Your task to perform on an android device: Go to ESPN.com Image 0: 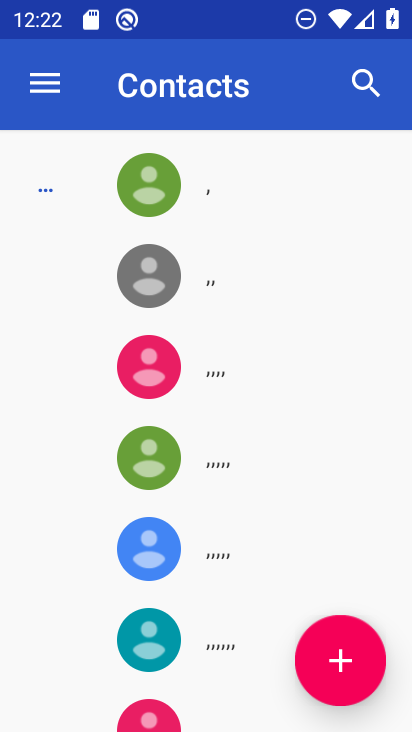
Step 0: press home button
Your task to perform on an android device: Go to ESPN.com Image 1: 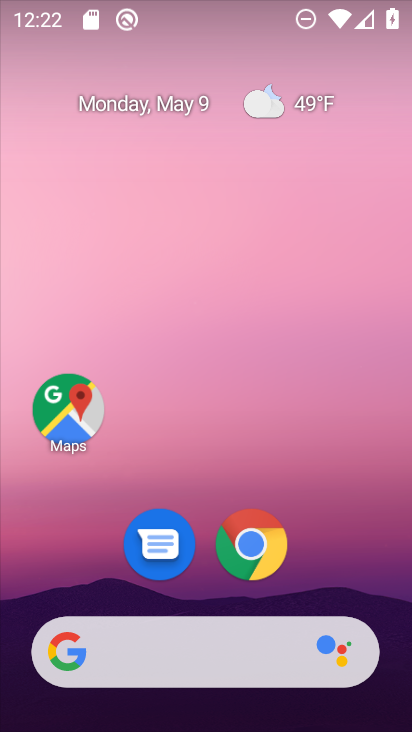
Step 1: click (234, 552)
Your task to perform on an android device: Go to ESPN.com Image 2: 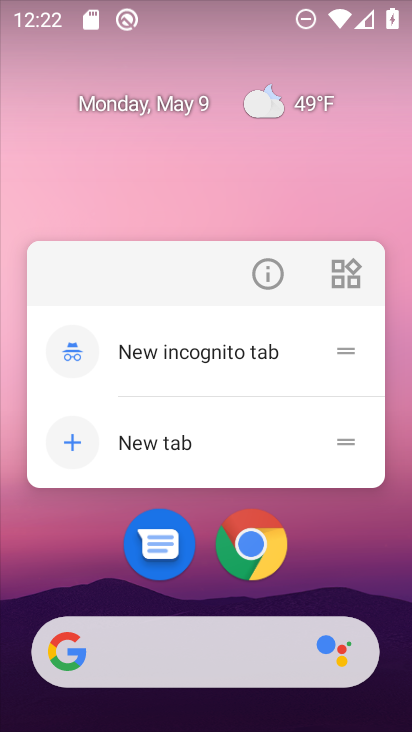
Step 2: click (234, 552)
Your task to perform on an android device: Go to ESPN.com Image 3: 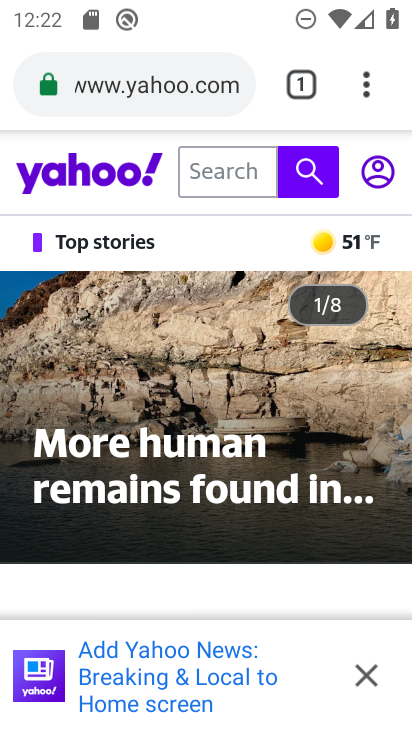
Step 3: click (210, 90)
Your task to perform on an android device: Go to ESPN.com Image 4: 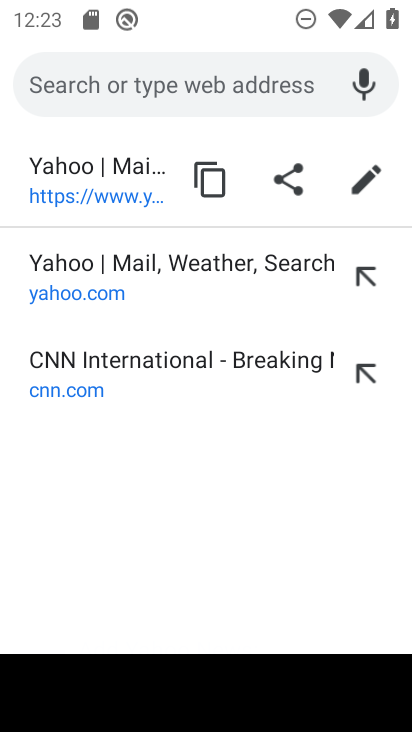
Step 4: type "espn.com"
Your task to perform on an android device: Go to ESPN.com Image 5: 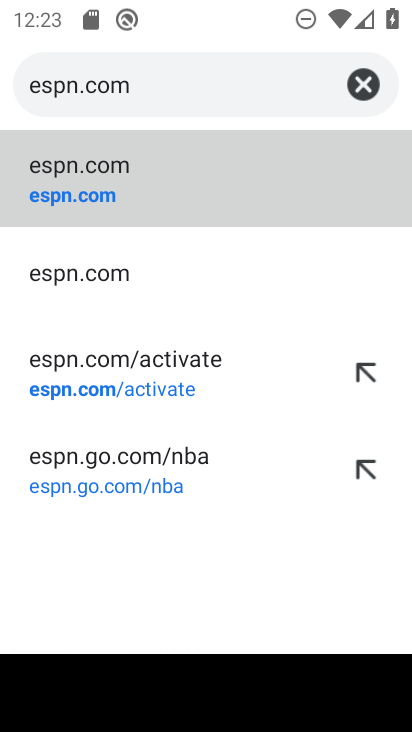
Step 5: click (96, 200)
Your task to perform on an android device: Go to ESPN.com Image 6: 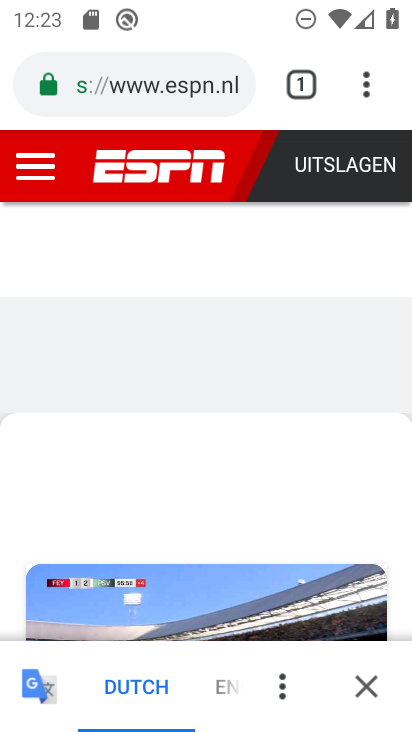
Step 6: task complete